Your task to perform on an android device: Open calendar and show me the first week of next month Image 0: 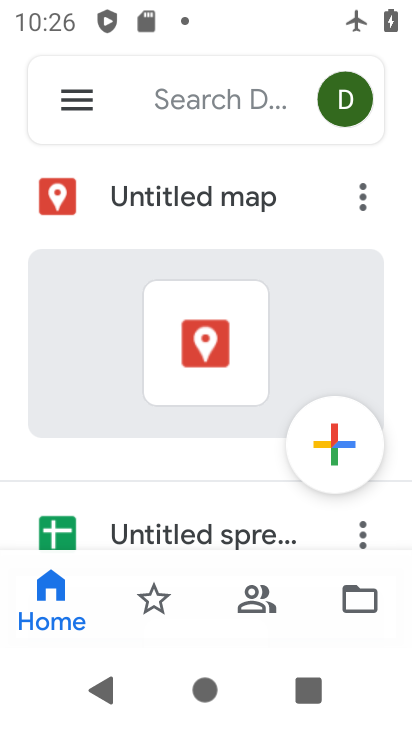
Step 0: press home button
Your task to perform on an android device: Open calendar and show me the first week of next month Image 1: 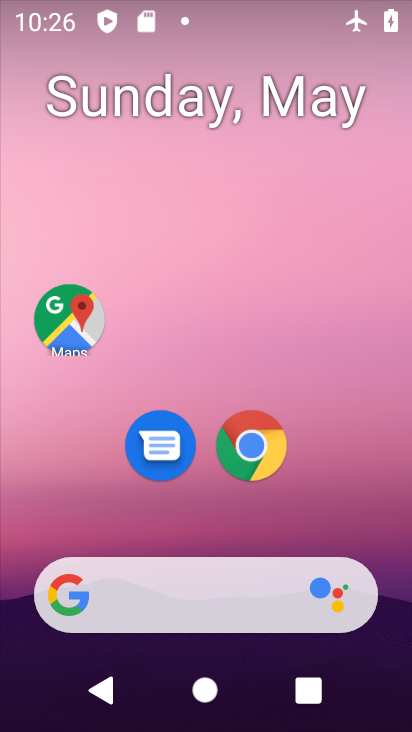
Step 1: drag from (207, 531) to (277, 152)
Your task to perform on an android device: Open calendar and show me the first week of next month Image 2: 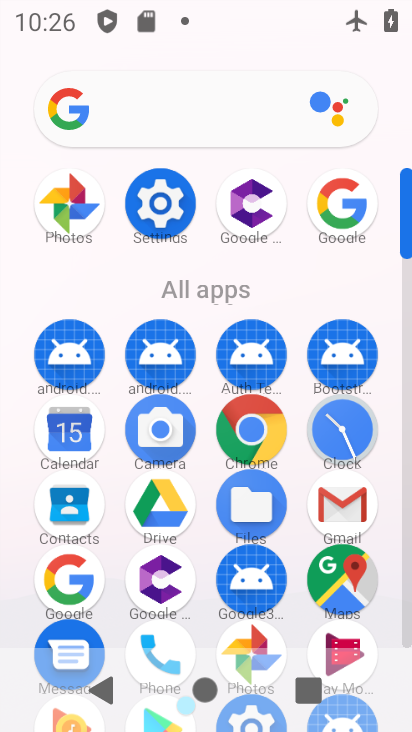
Step 2: click (76, 436)
Your task to perform on an android device: Open calendar and show me the first week of next month Image 3: 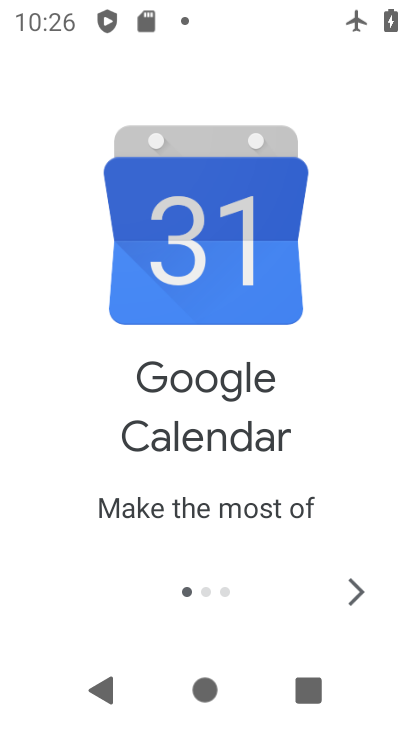
Step 3: click (352, 594)
Your task to perform on an android device: Open calendar and show me the first week of next month Image 4: 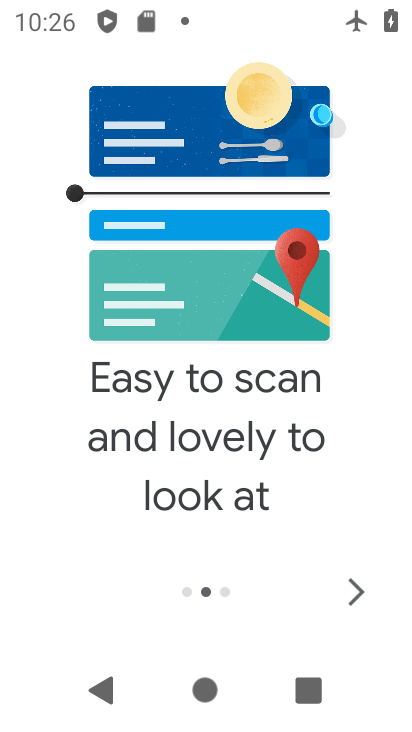
Step 4: click (352, 594)
Your task to perform on an android device: Open calendar and show me the first week of next month Image 5: 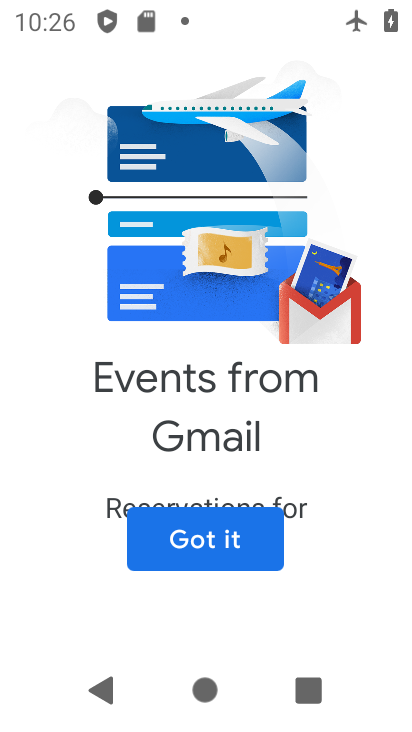
Step 5: click (221, 548)
Your task to perform on an android device: Open calendar and show me the first week of next month Image 6: 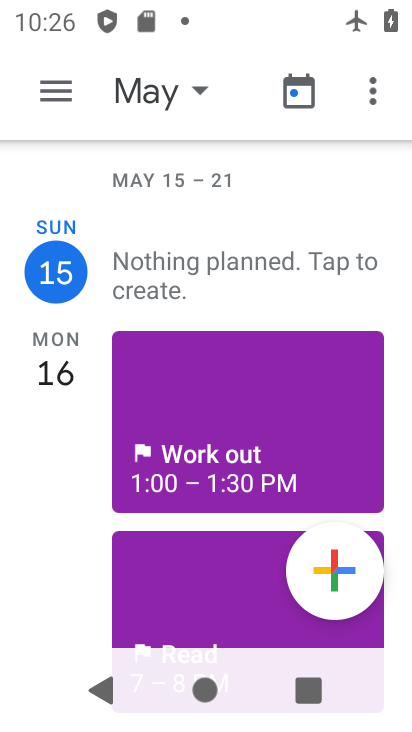
Step 6: click (181, 87)
Your task to perform on an android device: Open calendar and show me the first week of next month Image 7: 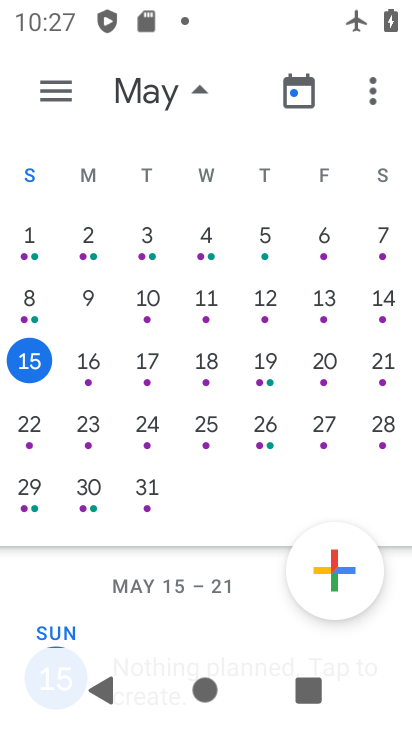
Step 7: drag from (397, 337) to (54, 313)
Your task to perform on an android device: Open calendar and show me the first week of next month Image 8: 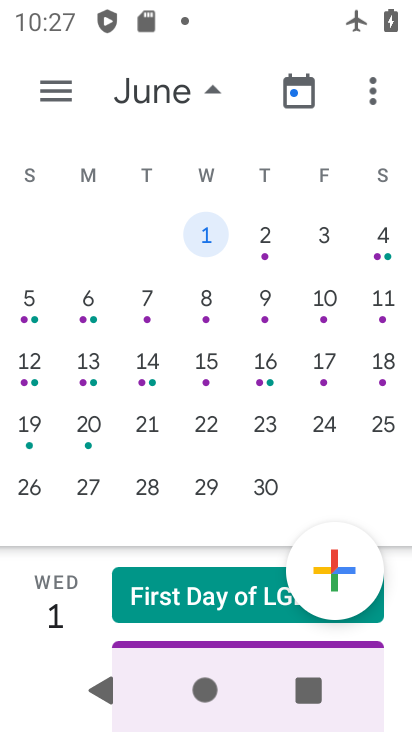
Step 8: click (260, 235)
Your task to perform on an android device: Open calendar and show me the first week of next month Image 9: 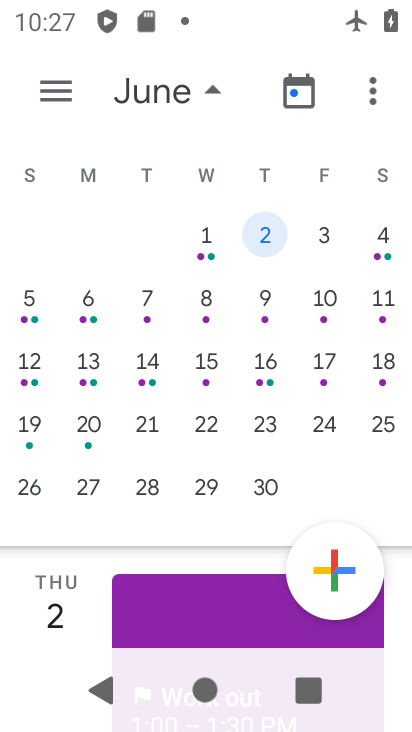
Step 9: click (313, 234)
Your task to perform on an android device: Open calendar and show me the first week of next month Image 10: 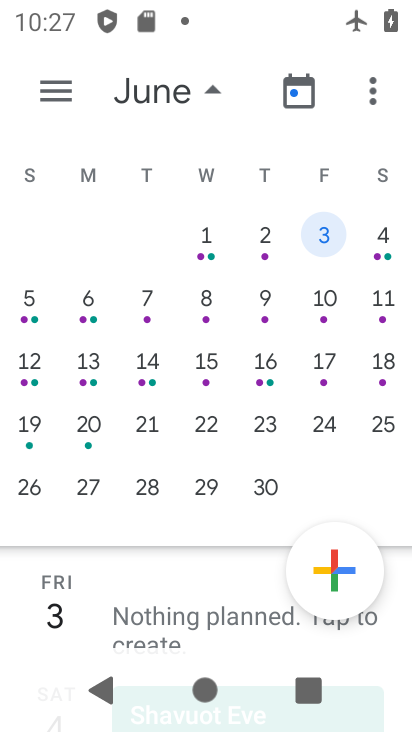
Step 10: click (378, 233)
Your task to perform on an android device: Open calendar and show me the first week of next month Image 11: 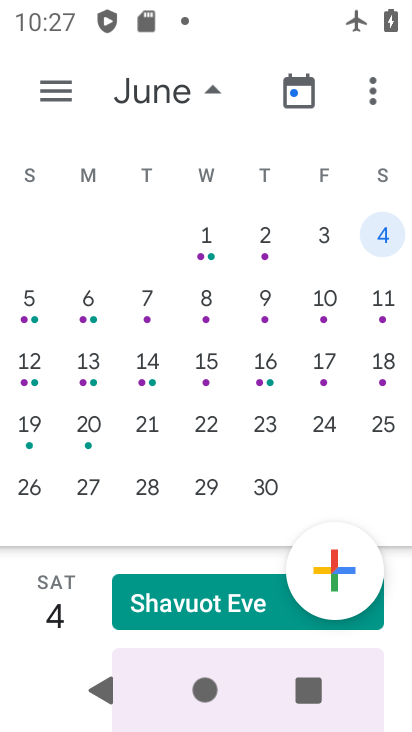
Step 11: task complete